Your task to perform on an android device: turn on showing notifications on the lock screen Image 0: 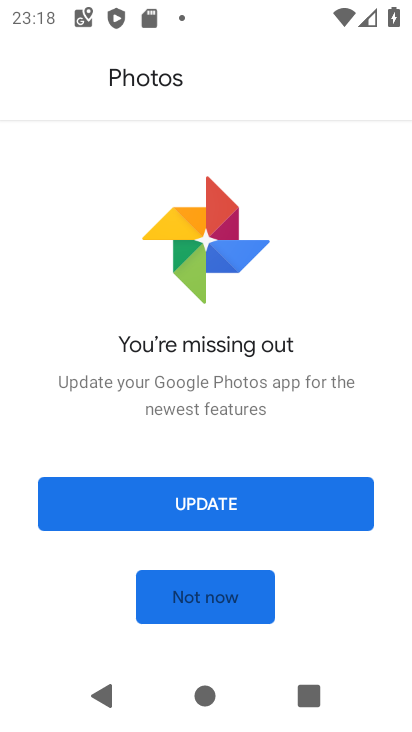
Step 0: press home button
Your task to perform on an android device: turn on showing notifications on the lock screen Image 1: 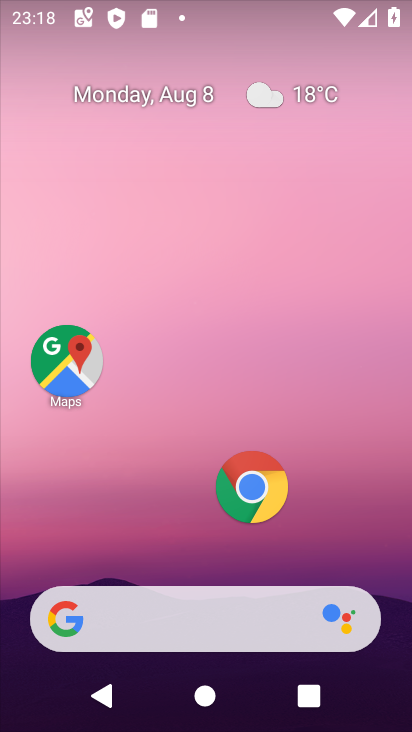
Step 1: drag from (214, 576) to (202, 104)
Your task to perform on an android device: turn on showing notifications on the lock screen Image 2: 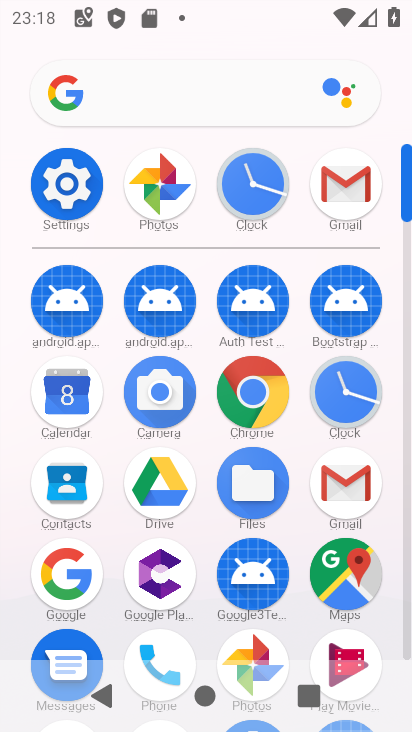
Step 2: click (50, 181)
Your task to perform on an android device: turn on showing notifications on the lock screen Image 3: 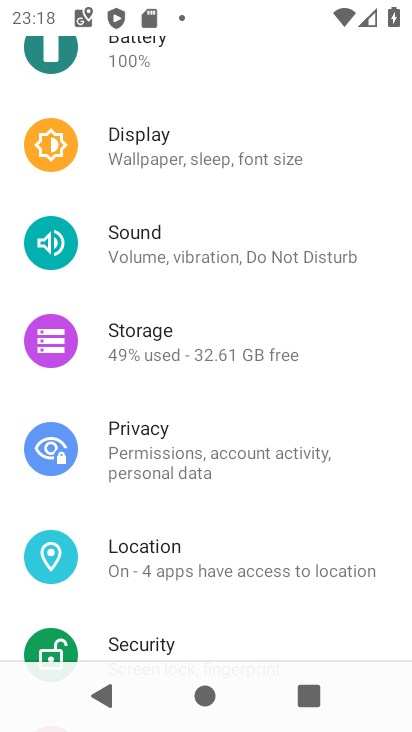
Step 3: drag from (154, 181) to (174, 463)
Your task to perform on an android device: turn on showing notifications on the lock screen Image 4: 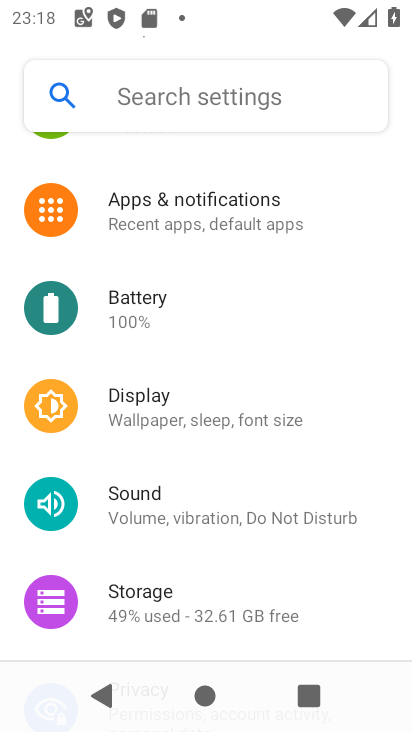
Step 4: click (170, 223)
Your task to perform on an android device: turn on showing notifications on the lock screen Image 5: 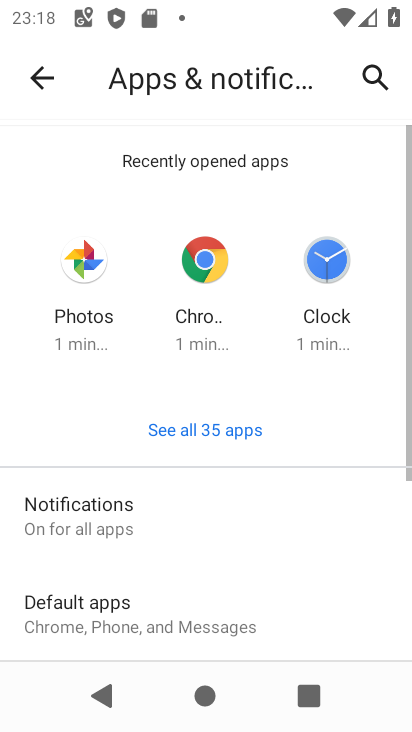
Step 5: click (107, 503)
Your task to perform on an android device: turn on showing notifications on the lock screen Image 6: 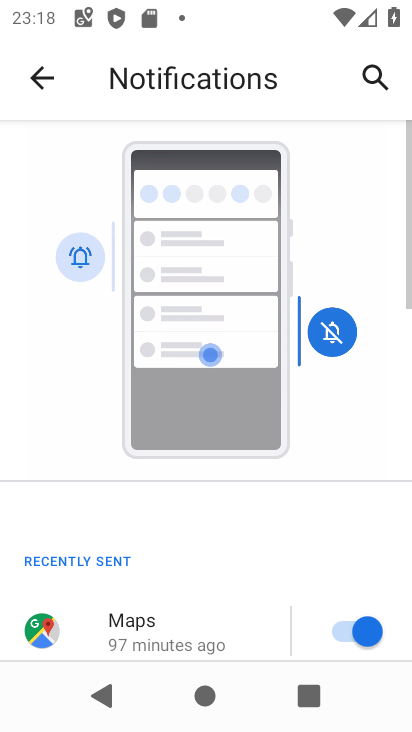
Step 6: drag from (163, 597) to (134, 268)
Your task to perform on an android device: turn on showing notifications on the lock screen Image 7: 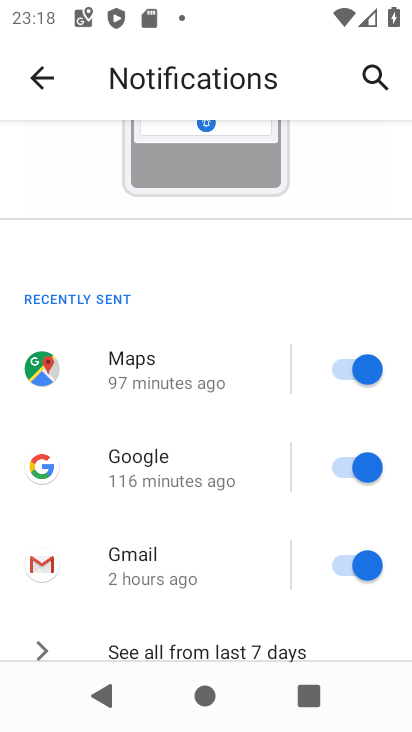
Step 7: drag from (234, 631) to (223, 315)
Your task to perform on an android device: turn on showing notifications on the lock screen Image 8: 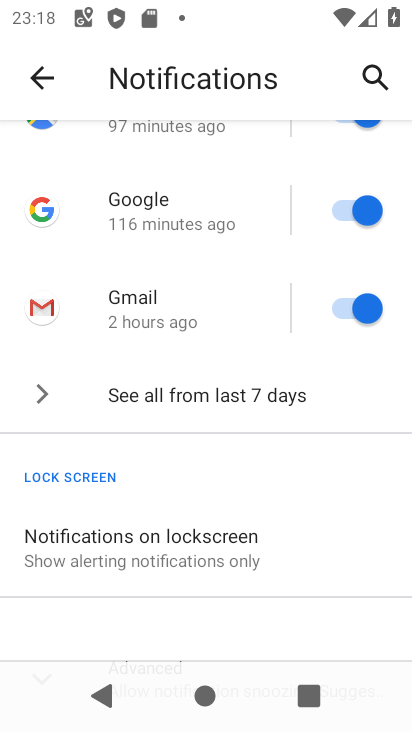
Step 8: click (214, 543)
Your task to perform on an android device: turn on showing notifications on the lock screen Image 9: 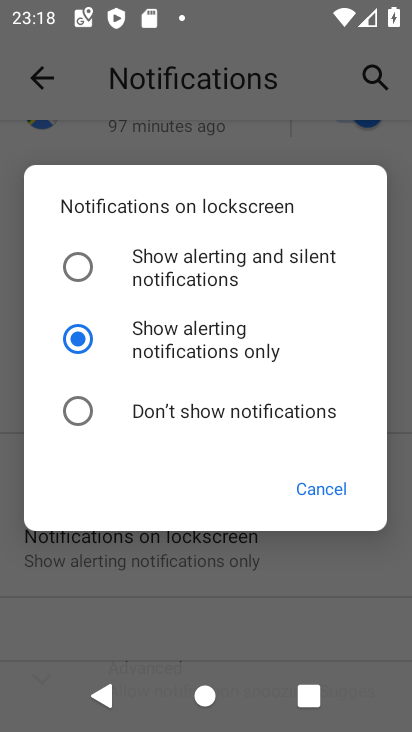
Step 9: click (68, 272)
Your task to perform on an android device: turn on showing notifications on the lock screen Image 10: 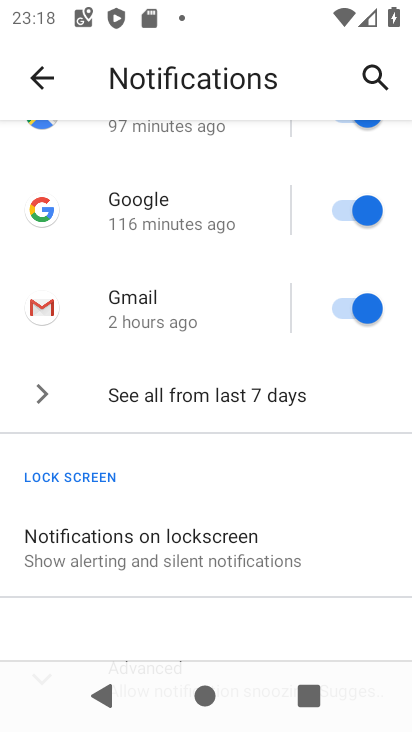
Step 10: task complete